Your task to perform on an android device: Add razer blade to the cart on bestbuy Image 0: 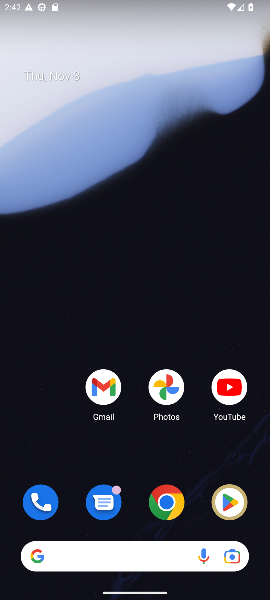
Step 0: drag from (182, 489) to (186, 116)
Your task to perform on an android device: Add razer blade to the cart on bestbuy Image 1: 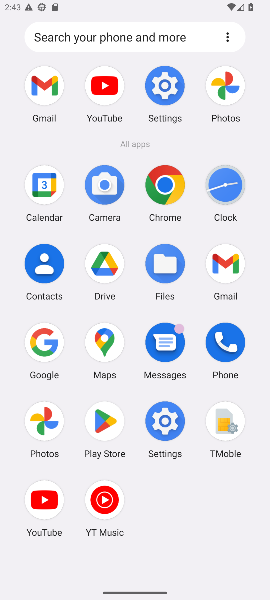
Step 1: click (41, 361)
Your task to perform on an android device: Add razer blade to the cart on bestbuy Image 2: 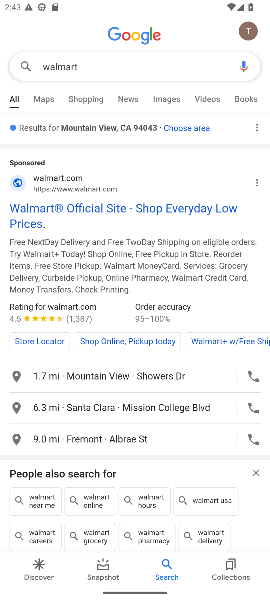
Step 2: click (111, 64)
Your task to perform on an android device: Add razer blade to the cart on bestbuy Image 3: 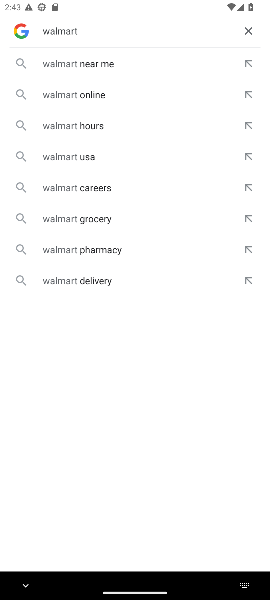
Step 3: click (252, 31)
Your task to perform on an android device: Add razer blade to the cart on bestbuy Image 4: 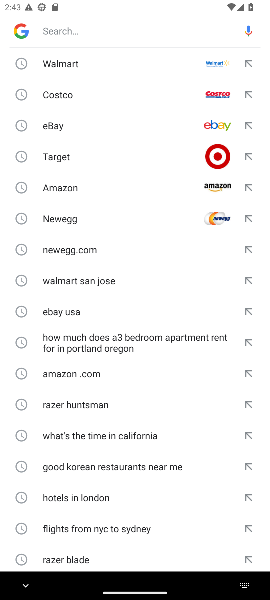
Step 4: type "bestbuy"
Your task to perform on an android device: Add razer blade to the cart on bestbuy Image 5: 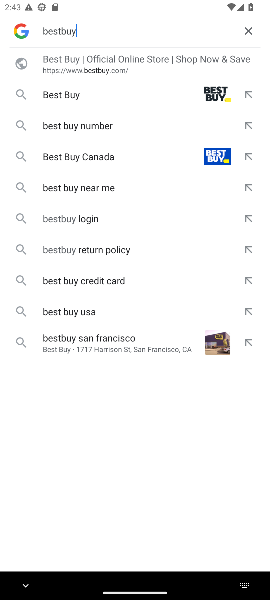
Step 5: click (90, 73)
Your task to perform on an android device: Add razer blade to the cart on bestbuy Image 6: 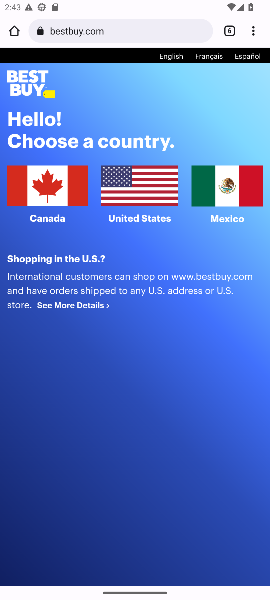
Step 6: click (134, 191)
Your task to perform on an android device: Add razer blade to the cart on bestbuy Image 7: 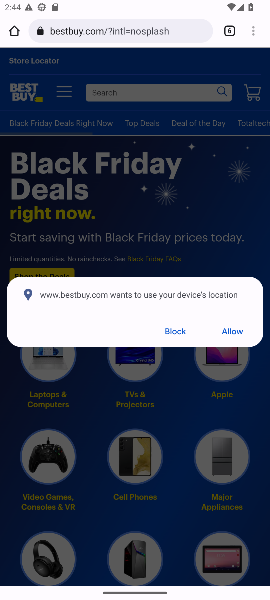
Step 7: click (183, 333)
Your task to perform on an android device: Add razer blade to the cart on bestbuy Image 8: 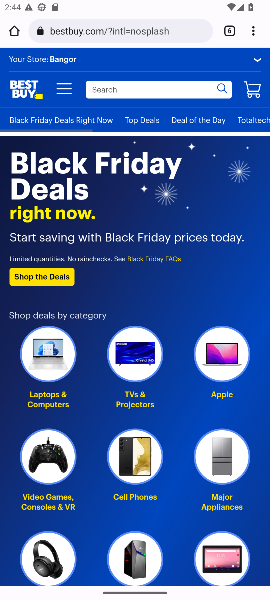
Step 8: click (178, 90)
Your task to perform on an android device: Add razer blade to the cart on bestbuy Image 9: 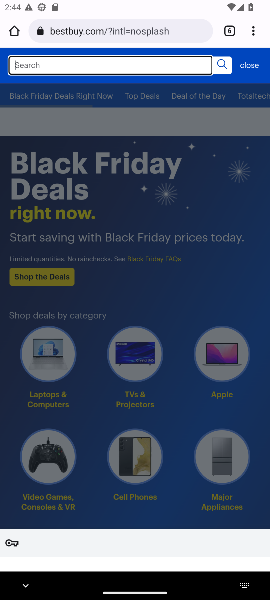
Step 9: type "razer blade"
Your task to perform on an android device: Add razer blade to the cart on bestbuy Image 10: 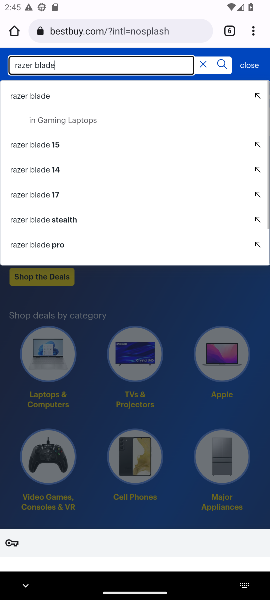
Step 10: click (42, 101)
Your task to perform on an android device: Add razer blade to the cart on bestbuy Image 11: 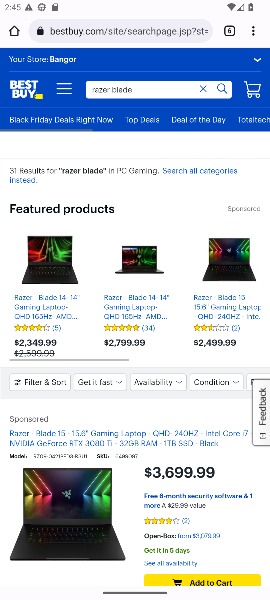
Step 11: drag from (163, 456) to (179, 213)
Your task to perform on an android device: Add razer blade to the cart on bestbuy Image 12: 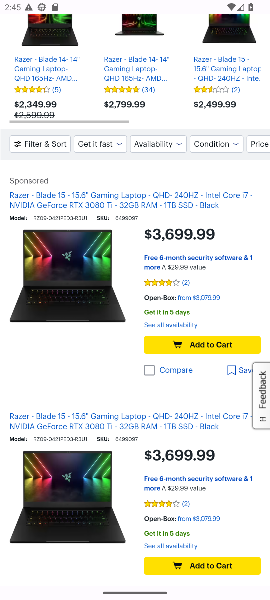
Step 12: click (181, 338)
Your task to perform on an android device: Add razer blade to the cart on bestbuy Image 13: 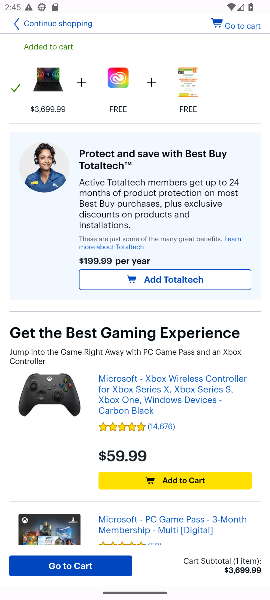
Step 13: task complete